Your task to perform on an android device: Search for razer blade on newegg.com, select the first entry, and add it to the cart. Image 0: 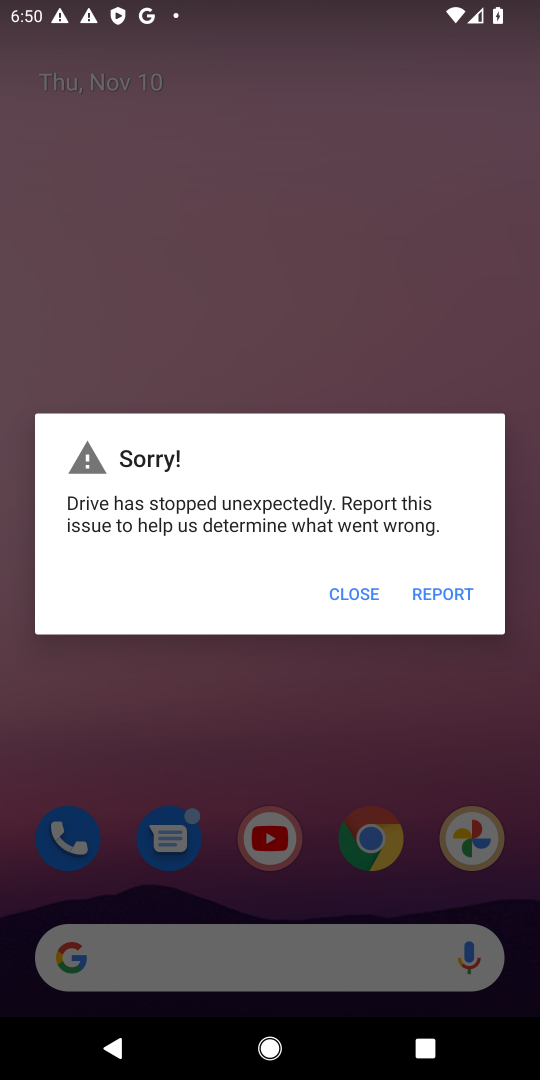
Step 0: press home button
Your task to perform on an android device: Search for razer blade on newegg.com, select the first entry, and add it to the cart. Image 1: 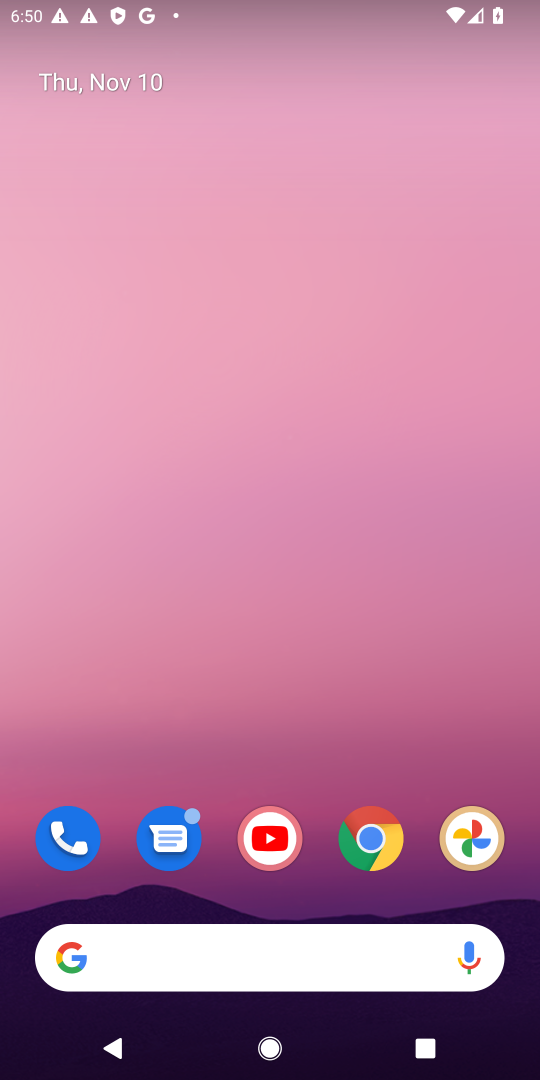
Step 1: drag from (315, 890) to (330, 80)
Your task to perform on an android device: Search for razer blade on newegg.com, select the first entry, and add it to the cart. Image 2: 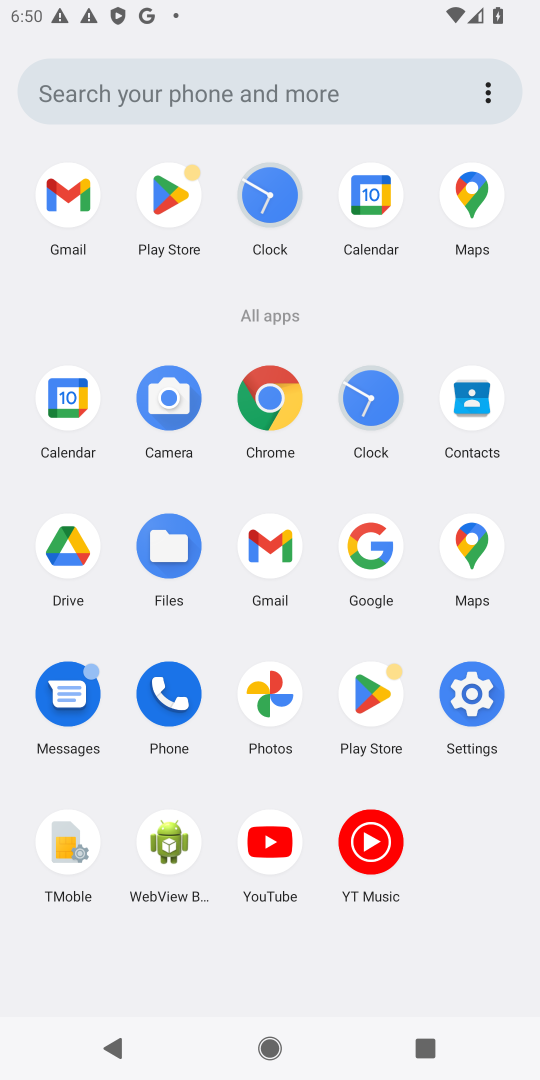
Step 2: click (269, 394)
Your task to perform on an android device: Search for razer blade on newegg.com, select the first entry, and add it to the cart. Image 3: 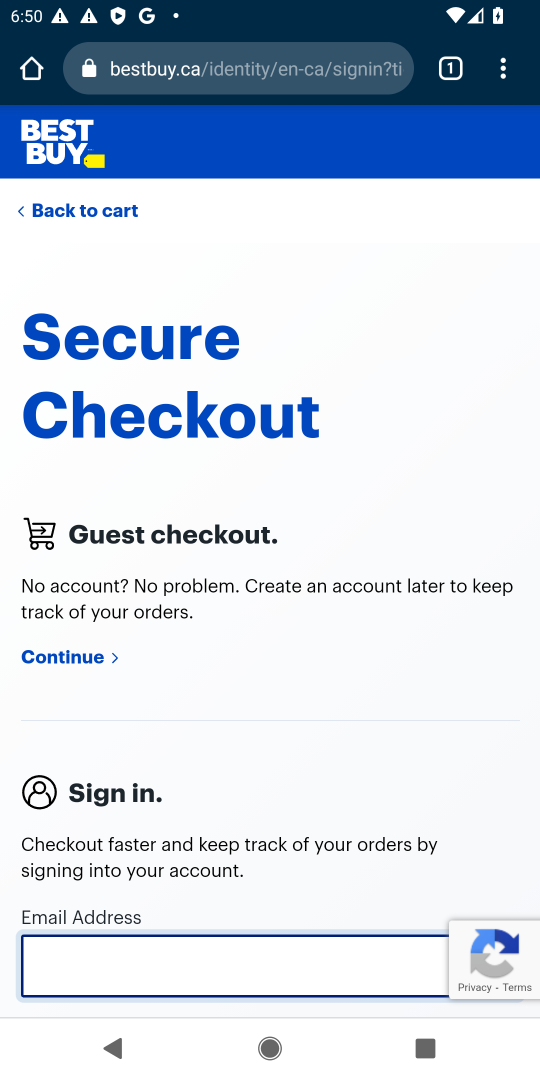
Step 3: click (259, 71)
Your task to perform on an android device: Search for razer blade on newegg.com, select the first entry, and add it to the cart. Image 4: 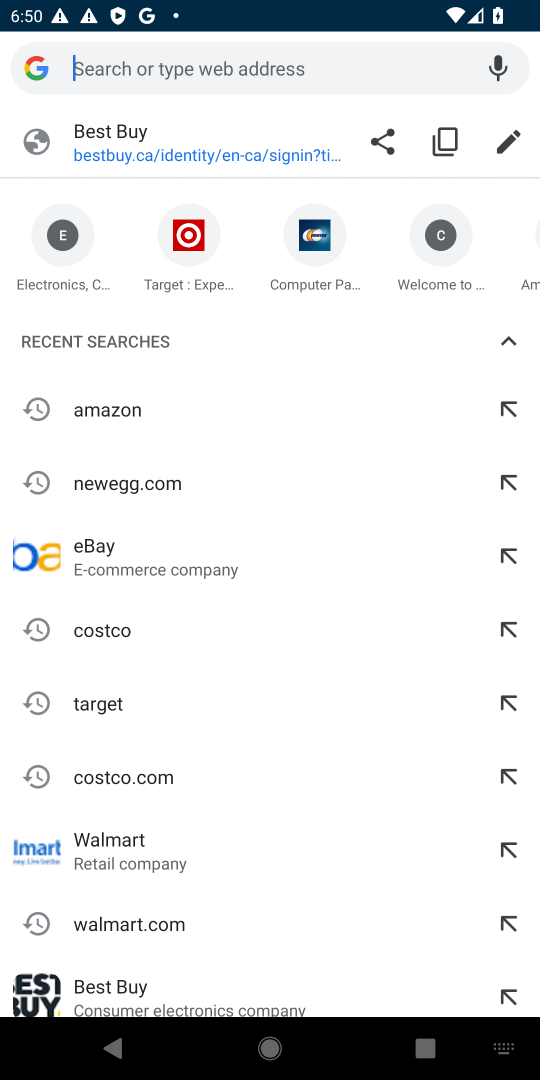
Step 4: type "newegg.com"
Your task to perform on an android device: Search for razer blade on newegg.com, select the first entry, and add it to the cart. Image 5: 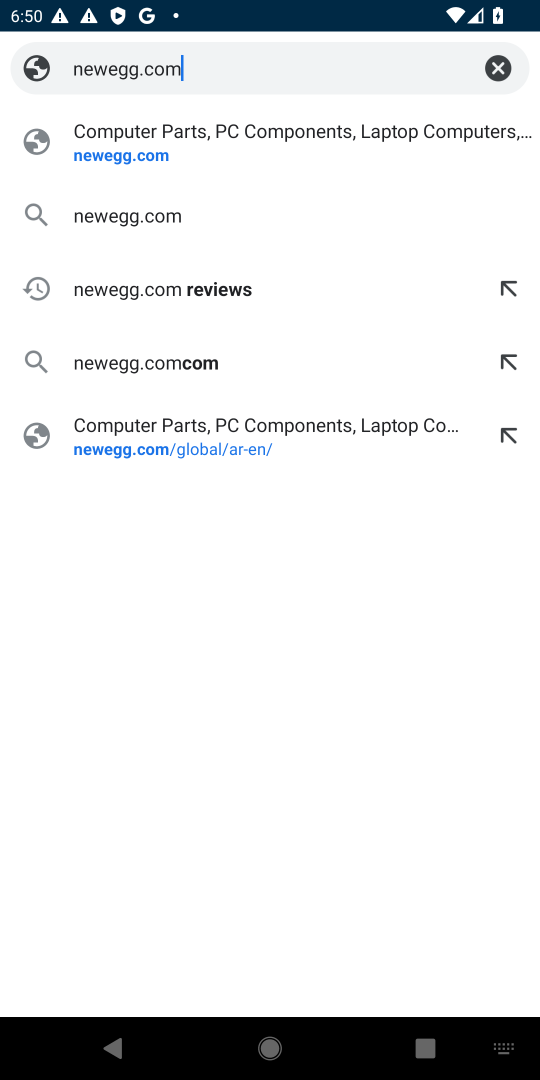
Step 5: press enter
Your task to perform on an android device: Search for razer blade on newegg.com, select the first entry, and add it to the cart. Image 6: 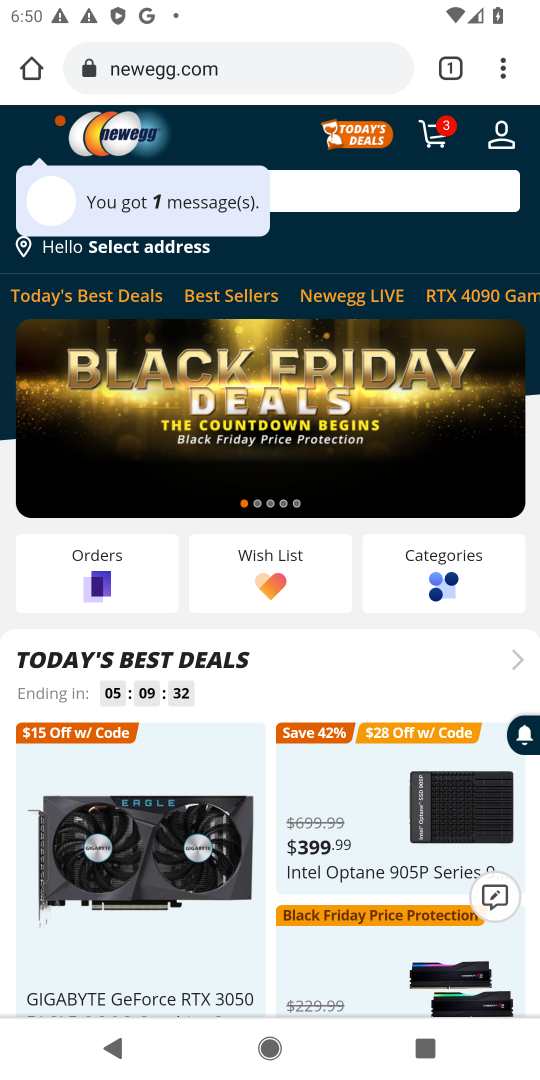
Step 6: click (361, 185)
Your task to perform on an android device: Search for razer blade on newegg.com, select the first entry, and add it to the cart. Image 7: 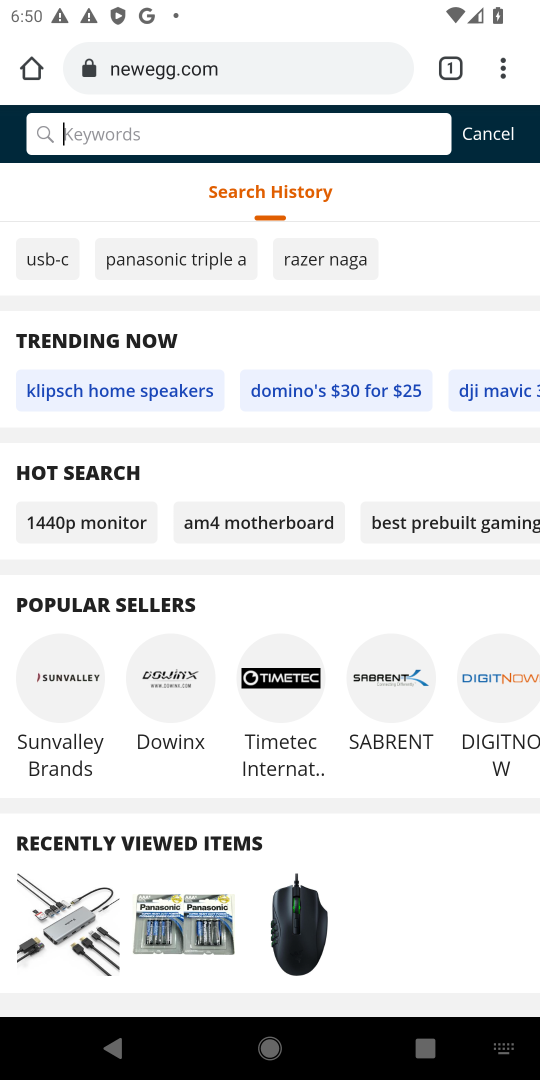
Step 7: type "razer blade"
Your task to perform on an android device: Search for razer blade on newegg.com, select the first entry, and add it to the cart. Image 8: 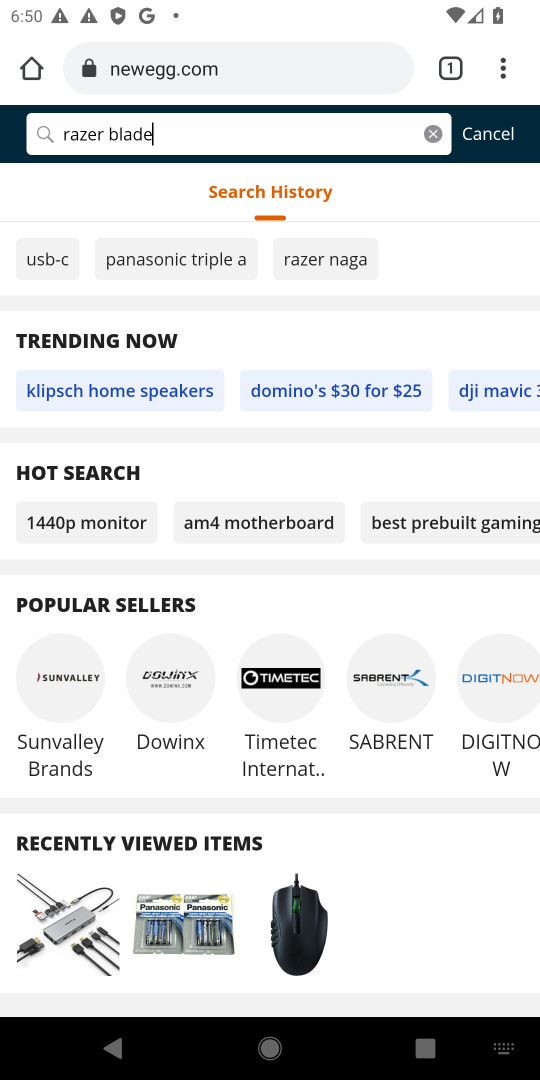
Step 8: press enter
Your task to perform on an android device: Search for razer blade on newegg.com, select the first entry, and add it to the cart. Image 9: 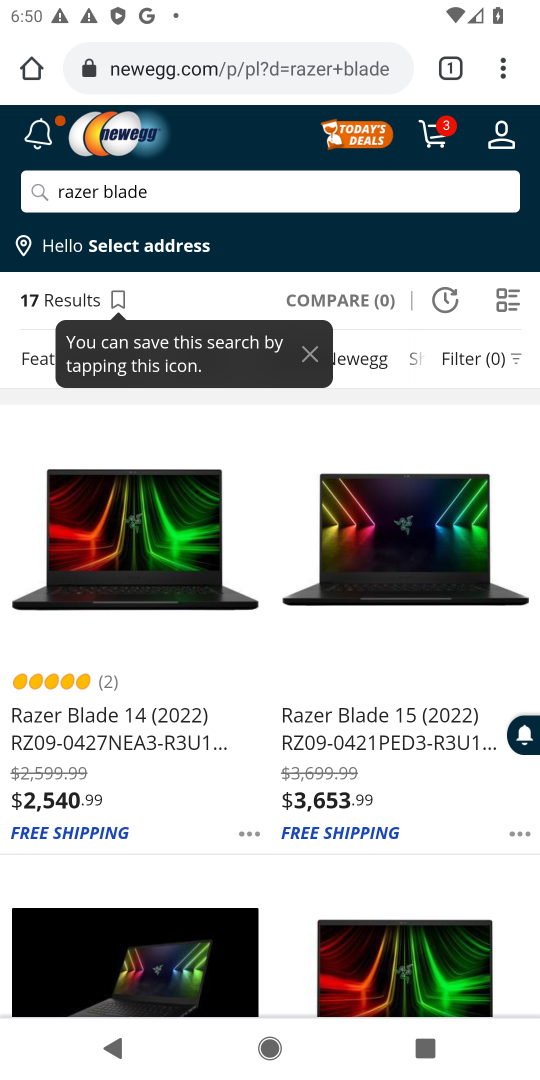
Step 9: click (135, 727)
Your task to perform on an android device: Search for razer blade on newegg.com, select the first entry, and add it to the cart. Image 10: 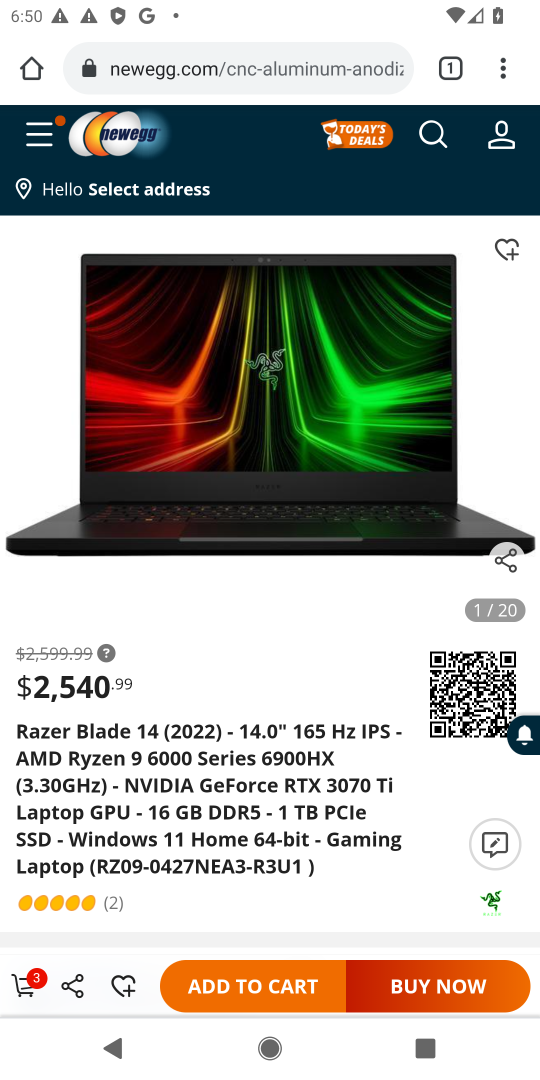
Step 10: click (240, 990)
Your task to perform on an android device: Search for razer blade on newegg.com, select the first entry, and add it to the cart. Image 11: 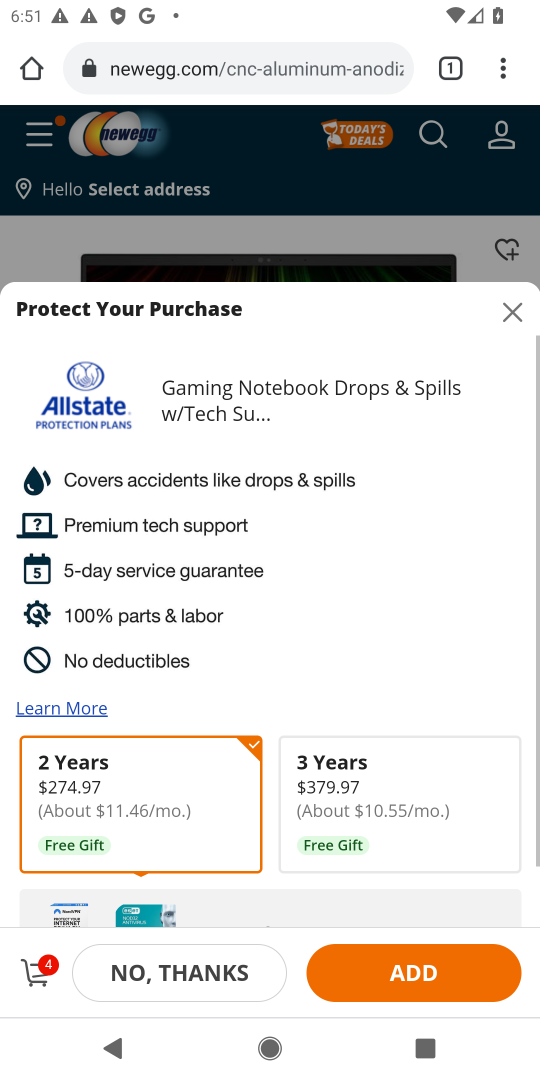
Step 11: task complete